Your task to perform on an android device: set the timer Image 0: 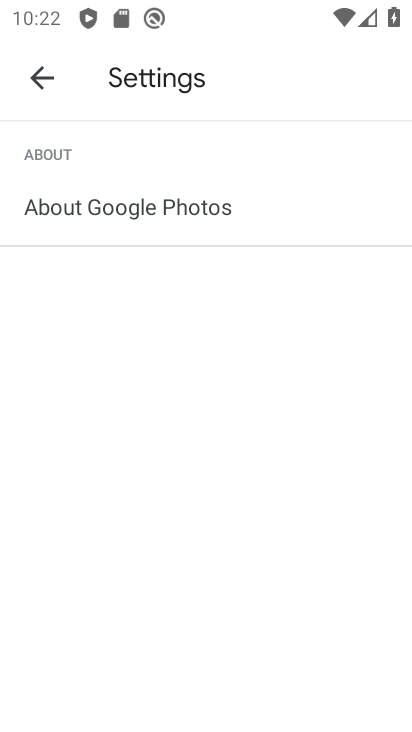
Step 0: press home button
Your task to perform on an android device: set the timer Image 1: 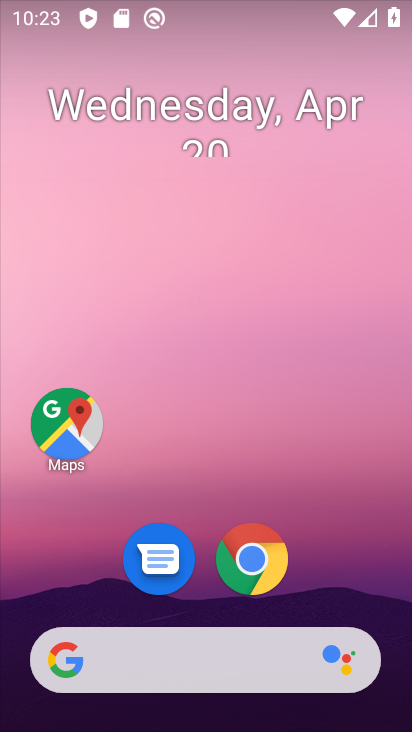
Step 1: drag from (216, 726) to (181, 129)
Your task to perform on an android device: set the timer Image 2: 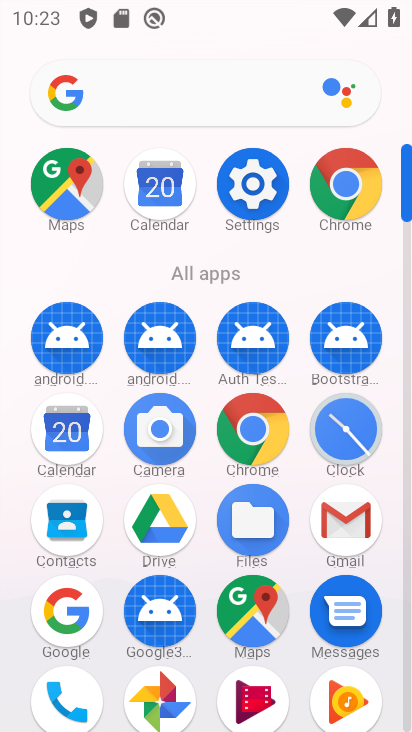
Step 2: click (342, 425)
Your task to perform on an android device: set the timer Image 3: 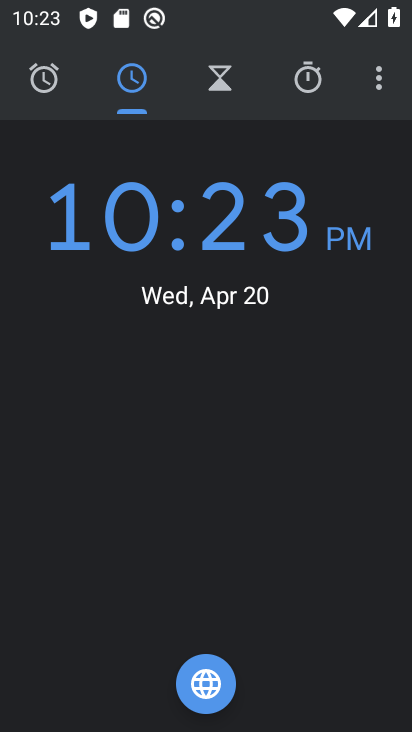
Step 3: click (221, 74)
Your task to perform on an android device: set the timer Image 4: 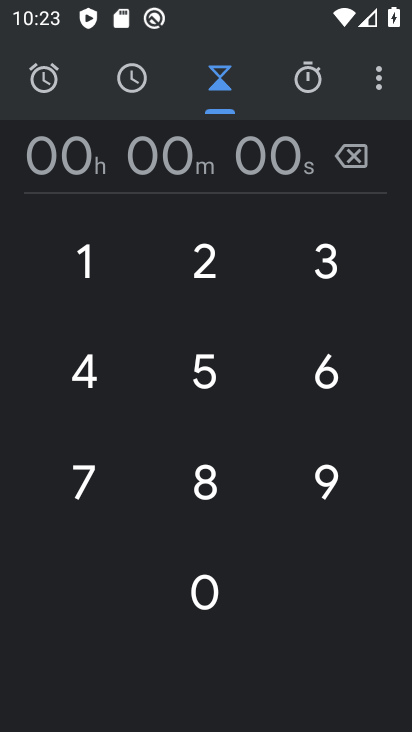
Step 4: click (206, 267)
Your task to perform on an android device: set the timer Image 5: 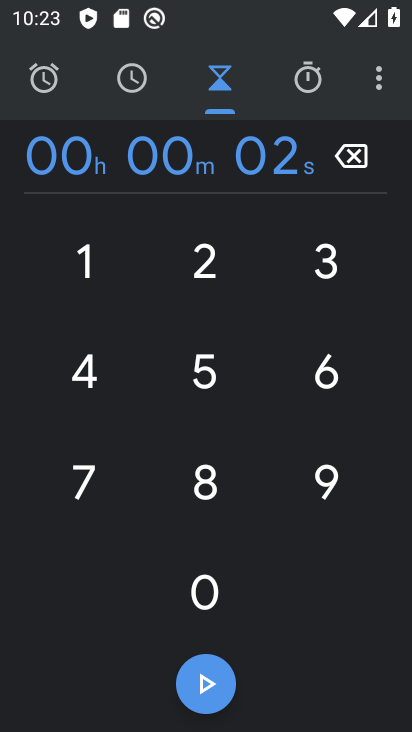
Step 5: click (202, 373)
Your task to perform on an android device: set the timer Image 6: 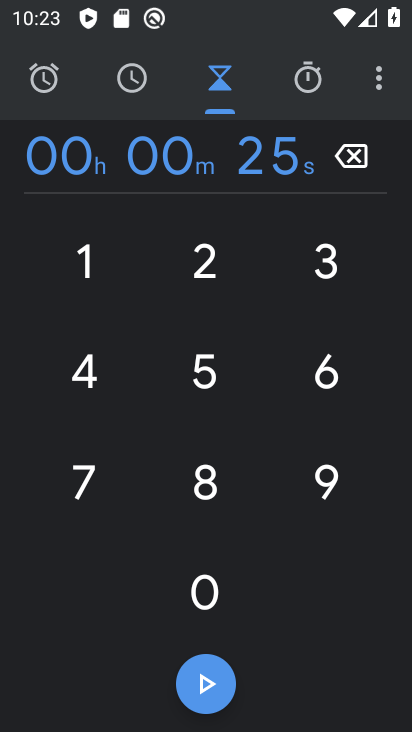
Step 6: click (84, 369)
Your task to perform on an android device: set the timer Image 7: 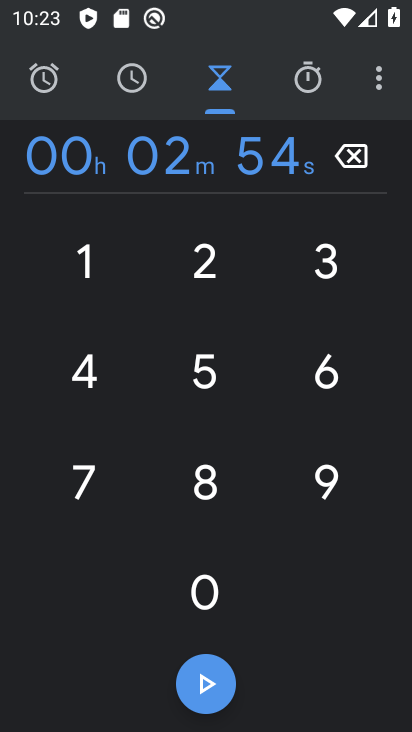
Step 7: click (209, 677)
Your task to perform on an android device: set the timer Image 8: 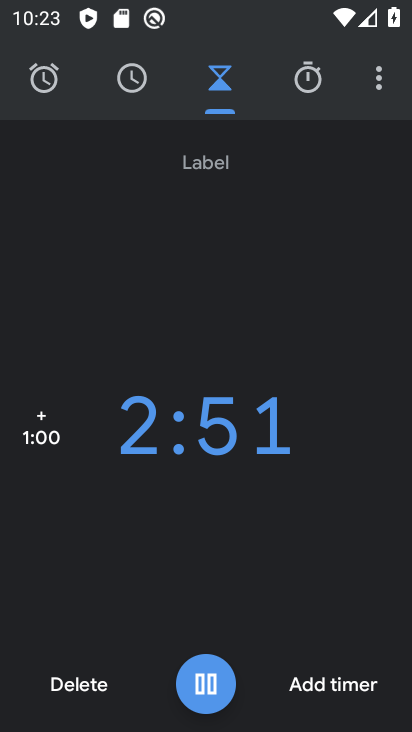
Step 8: task complete